Your task to perform on an android device: check data usage Image 0: 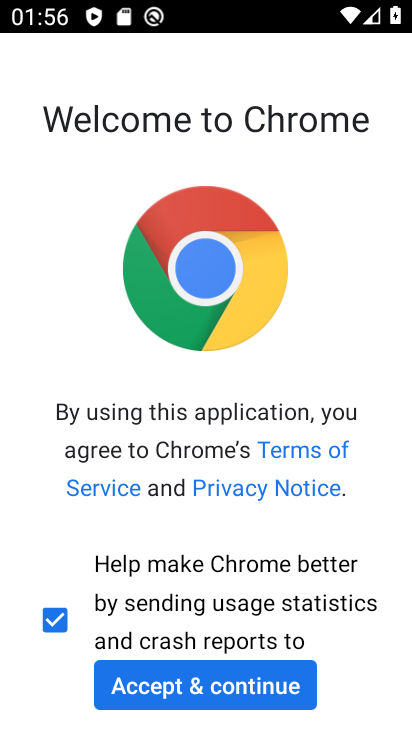
Step 0: press home button
Your task to perform on an android device: check data usage Image 1: 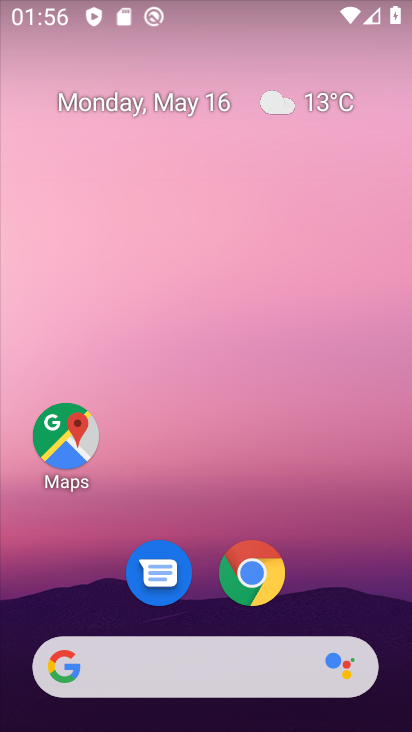
Step 1: drag from (202, 11) to (9, 347)
Your task to perform on an android device: check data usage Image 2: 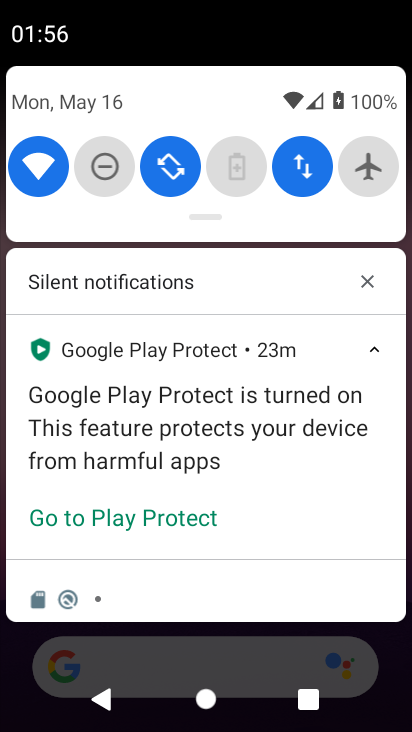
Step 2: drag from (126, 266) to (96, 496)
Your task to perform on an android device: check data usage Image 3: 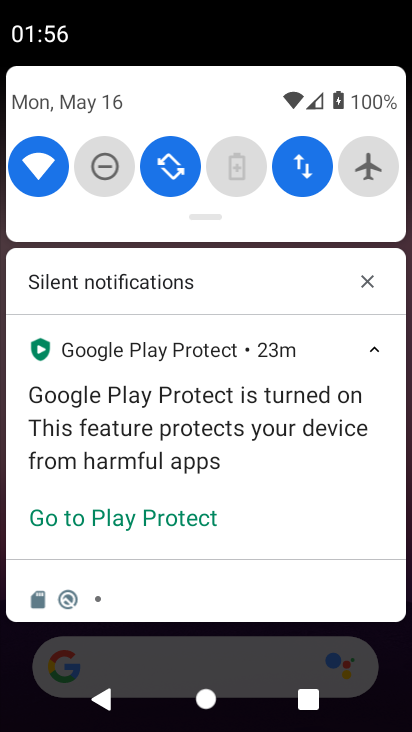
Step 3: drag from (182, 100) to (70, 683)
Your task to perform on an android device: check data usage Image 4: 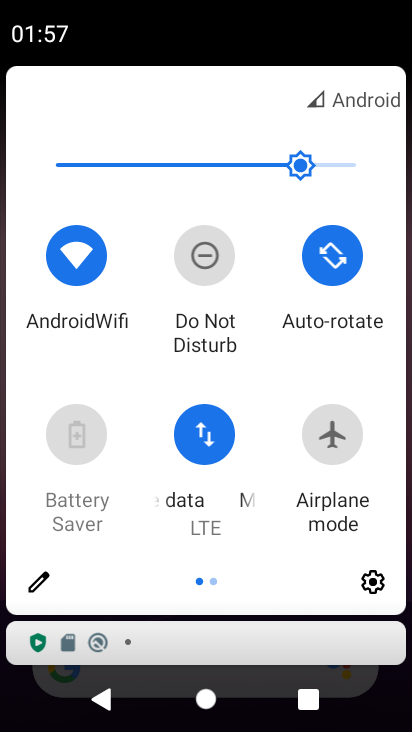
Step 4: click (376, 581)
Your task to perform on an android device: check data usage Image 5: 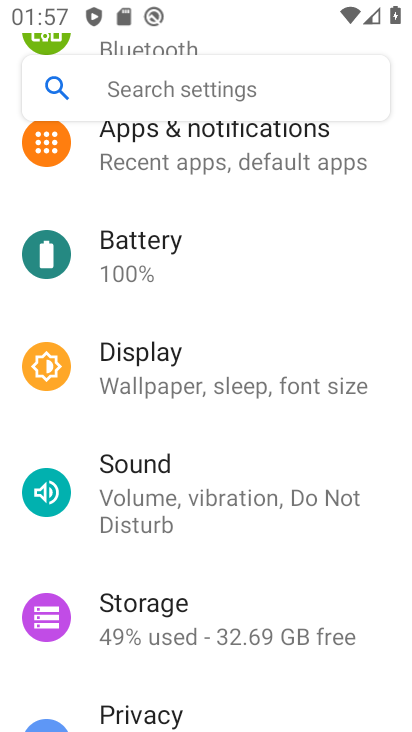
Step 5: drag from (227, 192) to (46, 702)
Your task to perform on an android device: check data usage Image 6: 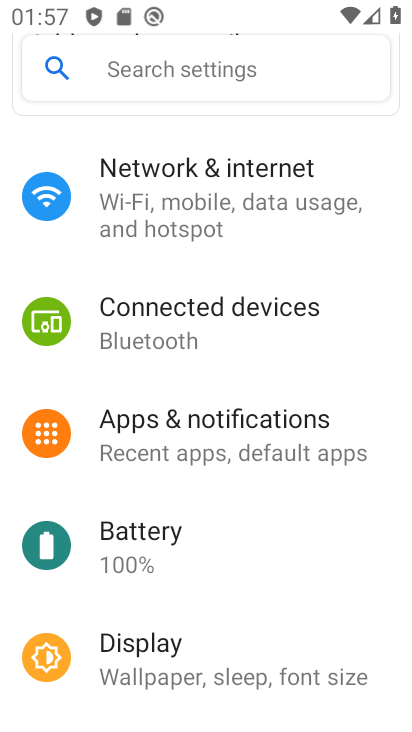
Step 6: click (223, 204)
Your task to perform on an android device: check data usage Image 7: 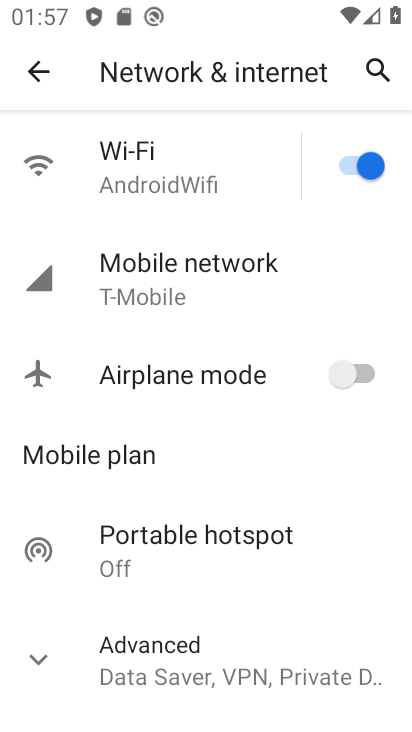
Step 7: click (245, 271)
Your task to perform on an android device: check data usage Image 8: 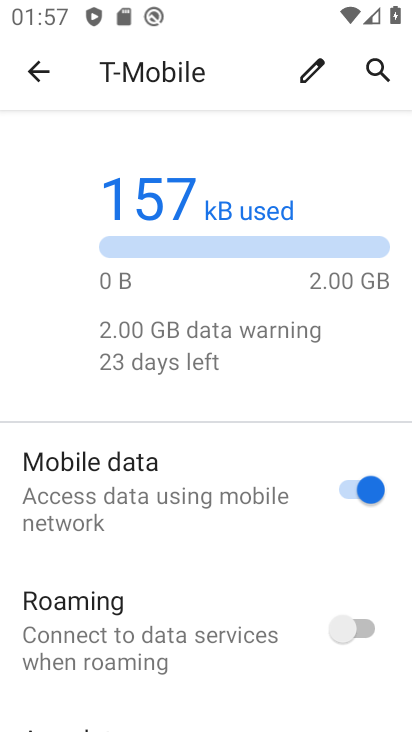
Step 8: task complete